Your task to perform on an android device: Add "macbook pro 15 inch" to the cart on amazon.com, then select checkout. Image 0: 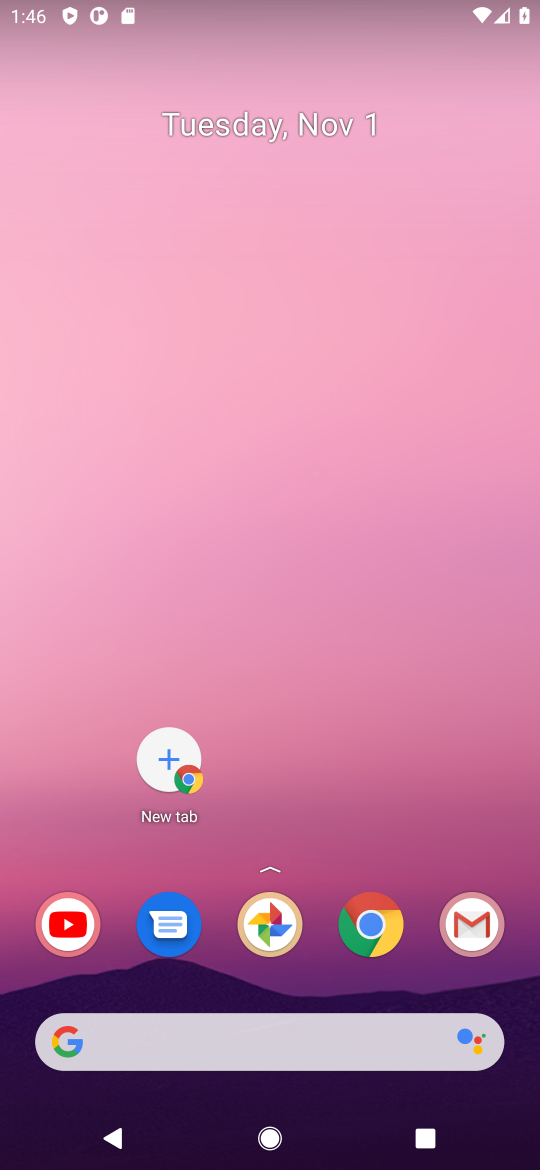
Step 0: click (358, 922)
Your task to perform on an android device: Add "macbook pro 15 inch" to the cart on amazon.com, then select checkout. Image 1: 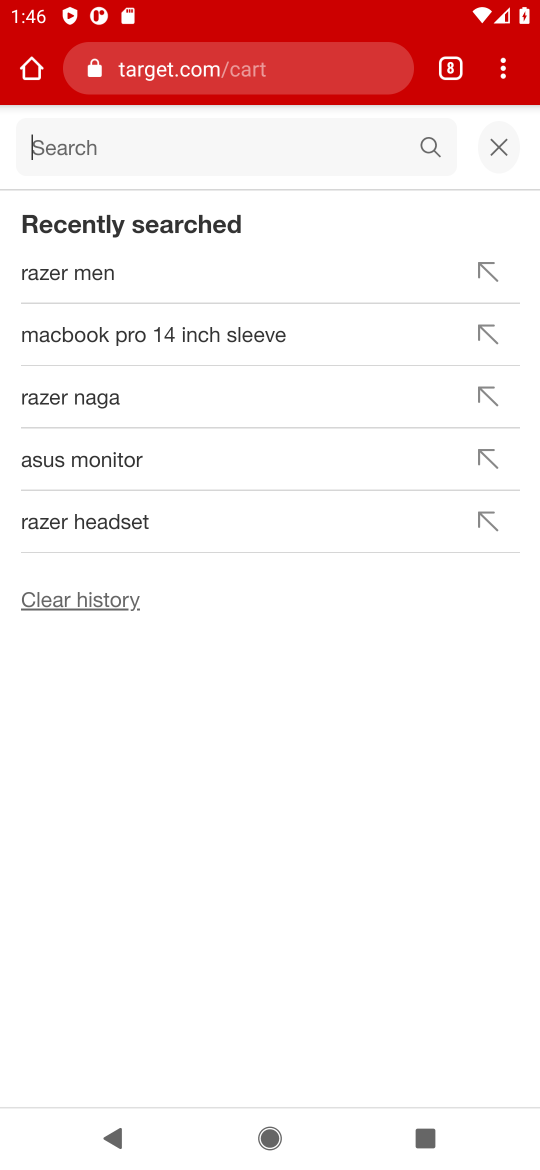
Step 1: click (190, 69)
Your task to perform on an android device: Add "macbook pro 15 inch" to the cart on amazon.com, then select checkout. Image 2: 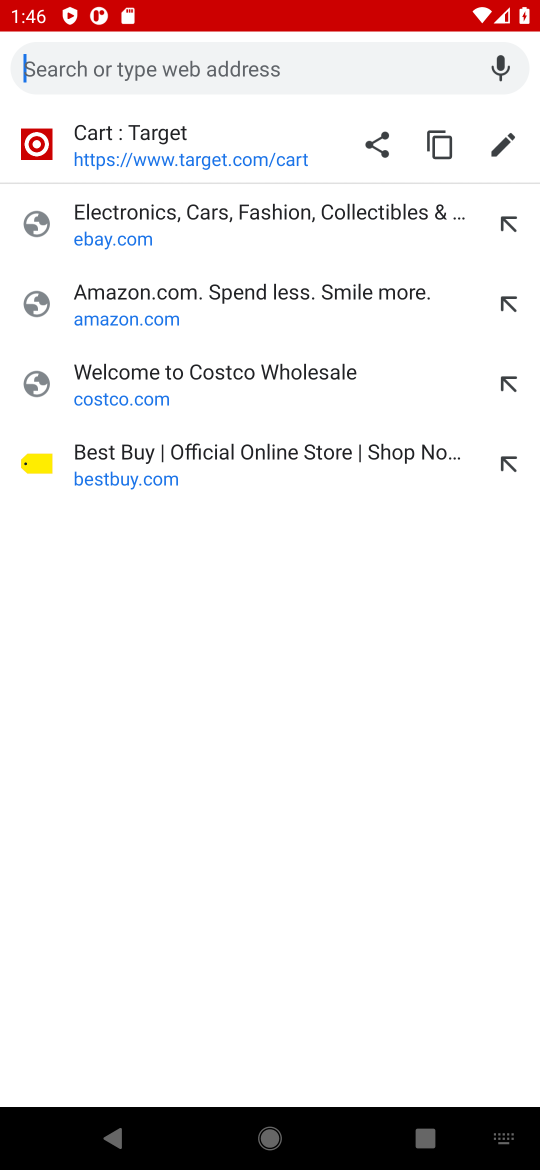
Step 2: type "amazon.com"
Your task to perform on an android device: Add "macbook pro 15 inch" to the cart on amazon.com, then select checkout. Image 3: 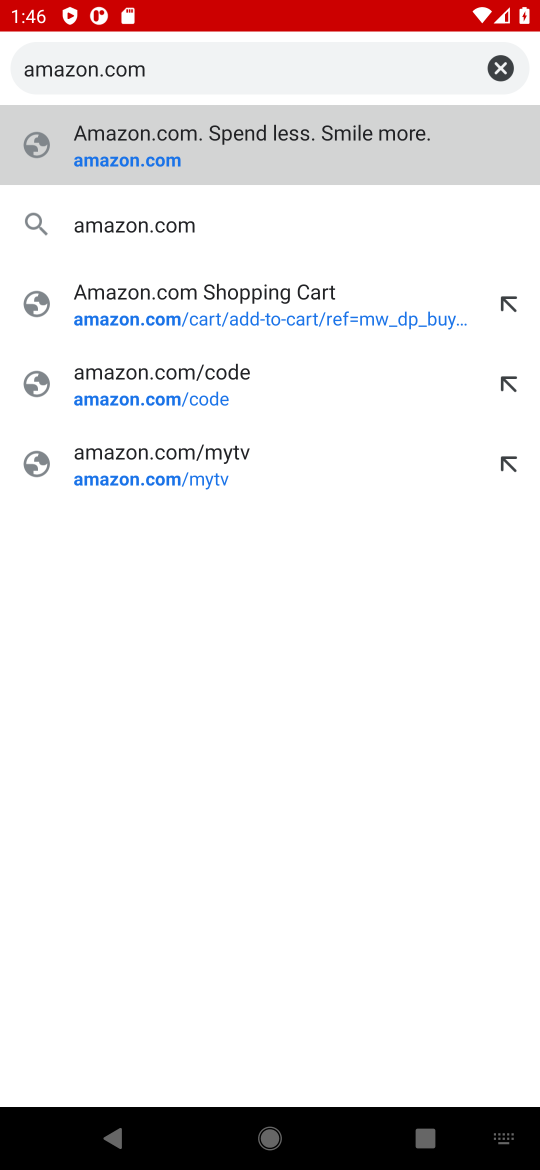
Step 3: type ""
Your task to perform on an android device: Add "macbook pro 15 inch" to the cart on amazon.com, then select checkout. Image 4: 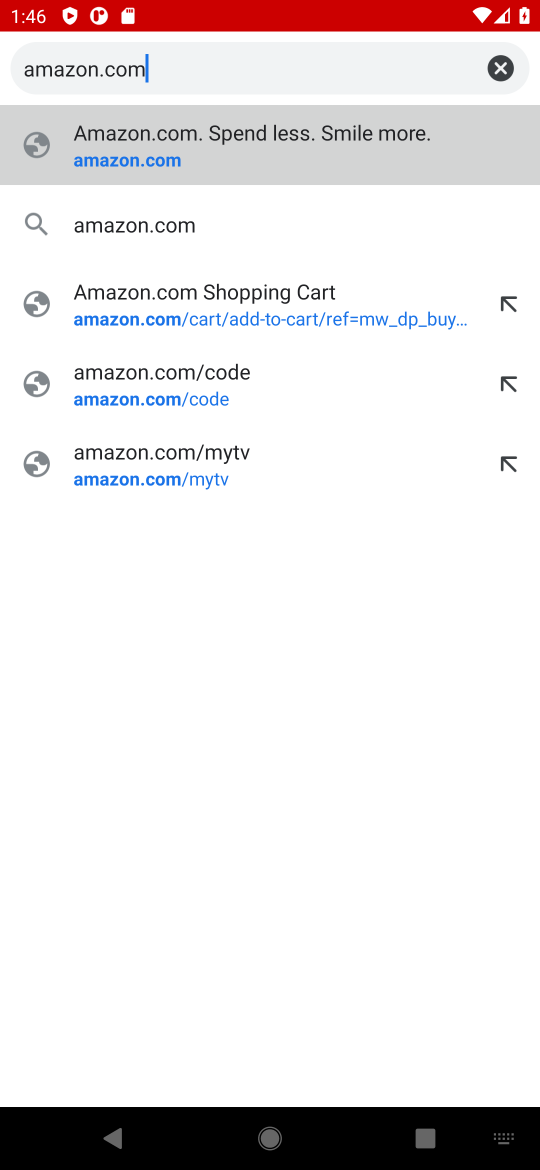
Step 4: click (173, 149)
Your task to perform on an android device: Add "macbook pro 15 inch" to the cart on amazon.com, then select checkout. Image 5: 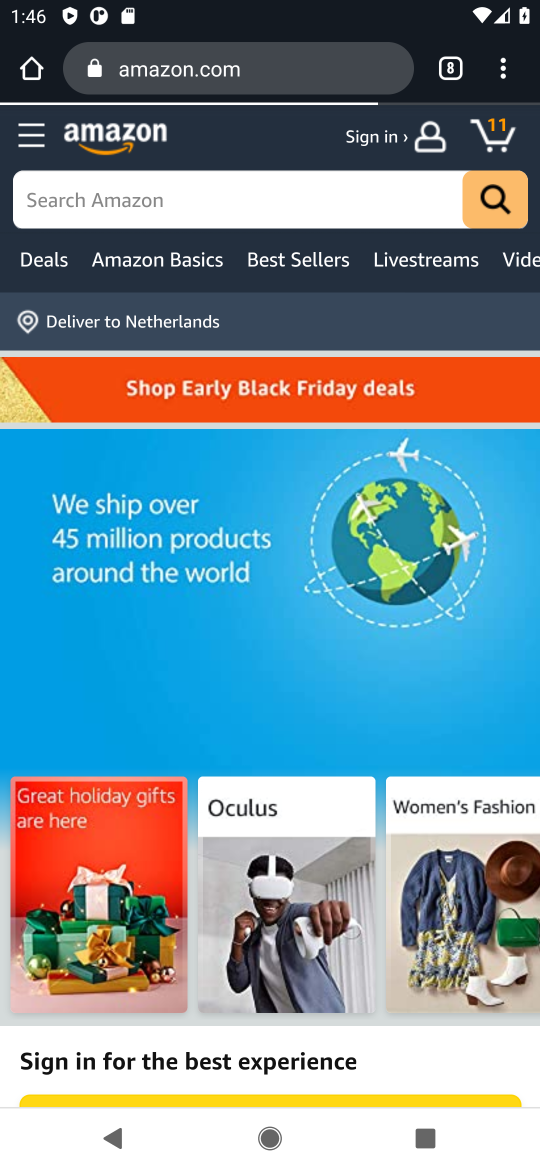
Step 5: click (148, 207)
Your task to perform on an android device: Add "macbook pro 15 inch" to the cart on amazon.com, then select checkout. Image 6: 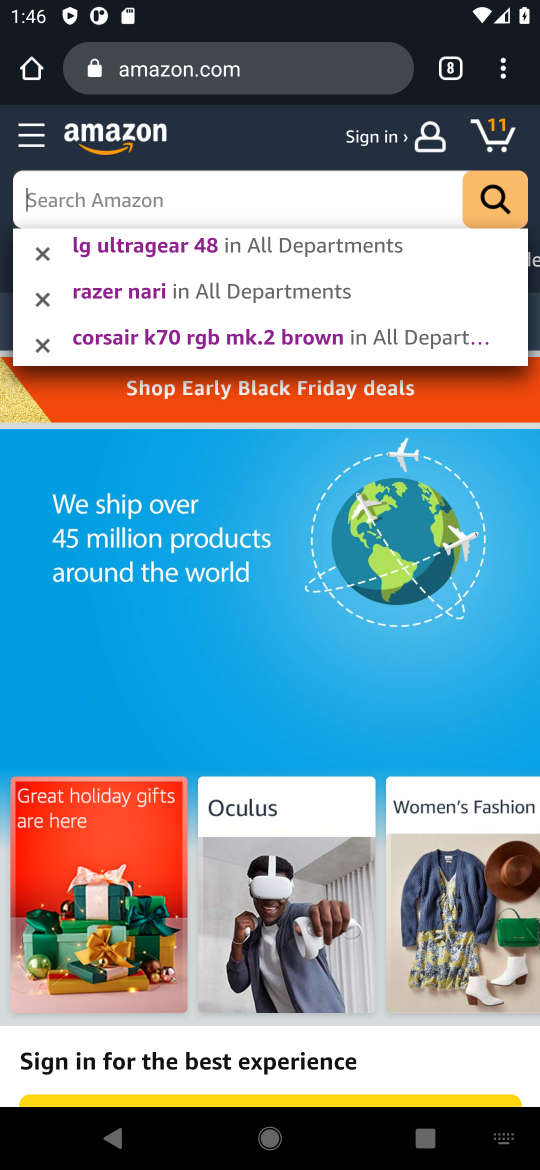
Step 6: type "macpro 15 inch"
Your task to perform on an android device: Add "macbook pro 15 inch" to the cart on amazon.com, then select checkout. Image 7: 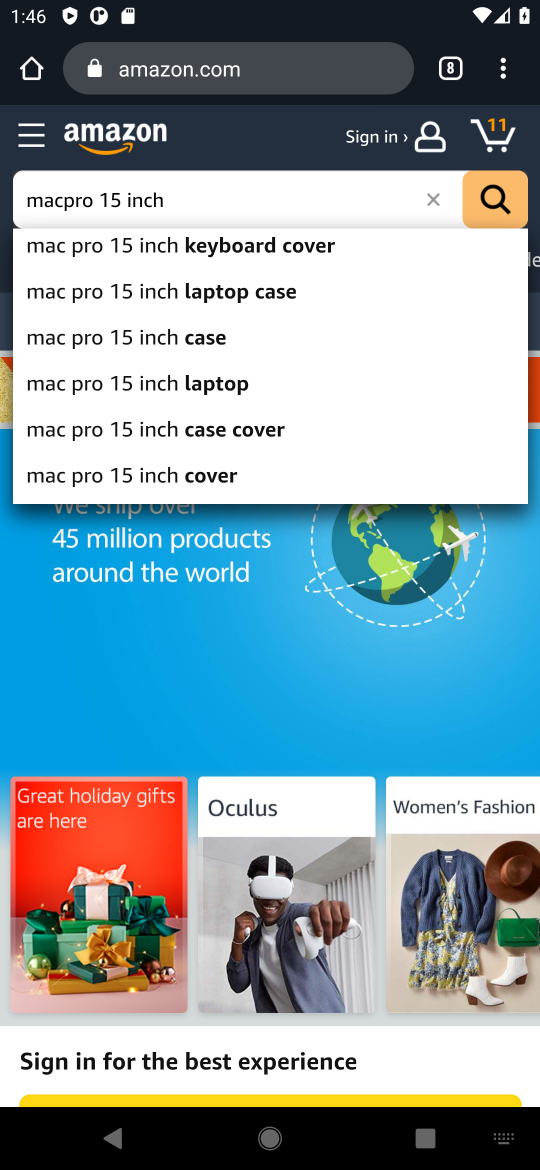
Step 7: type ""
Your task to perform on an android device: Add "macbook pro 15 inch" to the cart on amazon.com, then select checkout. Image 8: 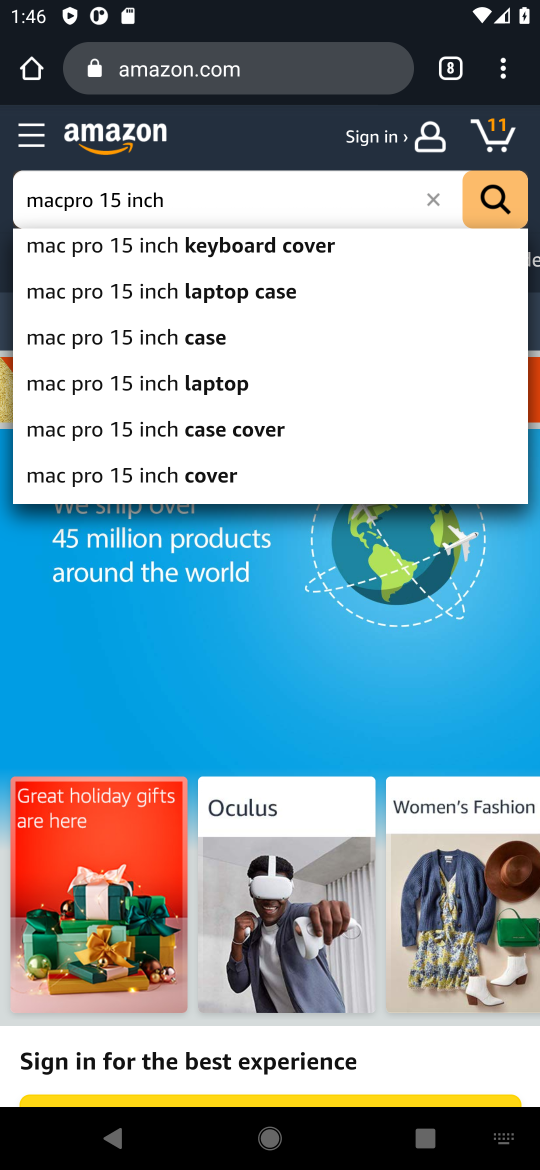
Step 8: click (174, 245)
Your task to perform on an android device: Add "macbook pro 15 inch" to the cart on amazon.com, then select checkout. Image 9: 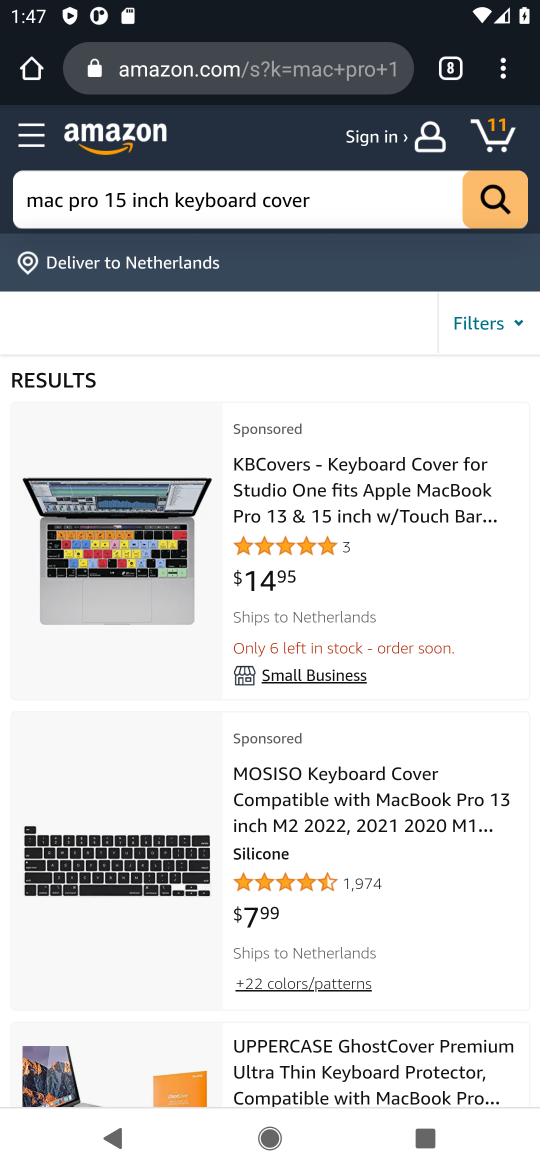
Step 9: drag from (164, 896) to (151, 815)
Your task to perform on an android device: Add "macbook pro 15 inch" to the cart on amazon.com, then select checkout. Image 10: 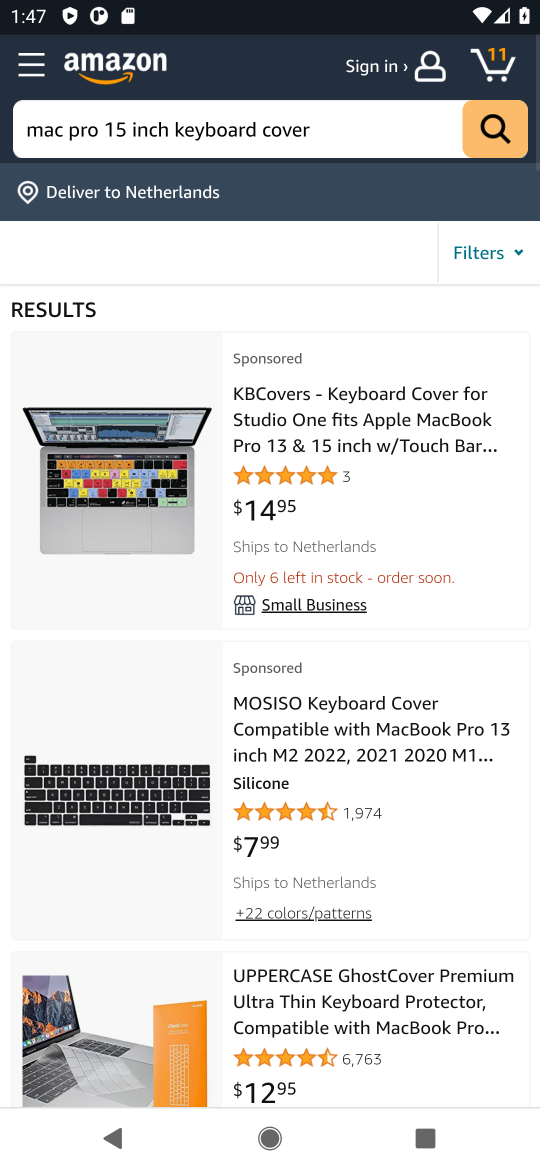
Step 10: click (145, 804)
Your task to perform on an android device: Add "macbook pro 15 inch" to the cart on amazon.com, then select checkout. Image 11: 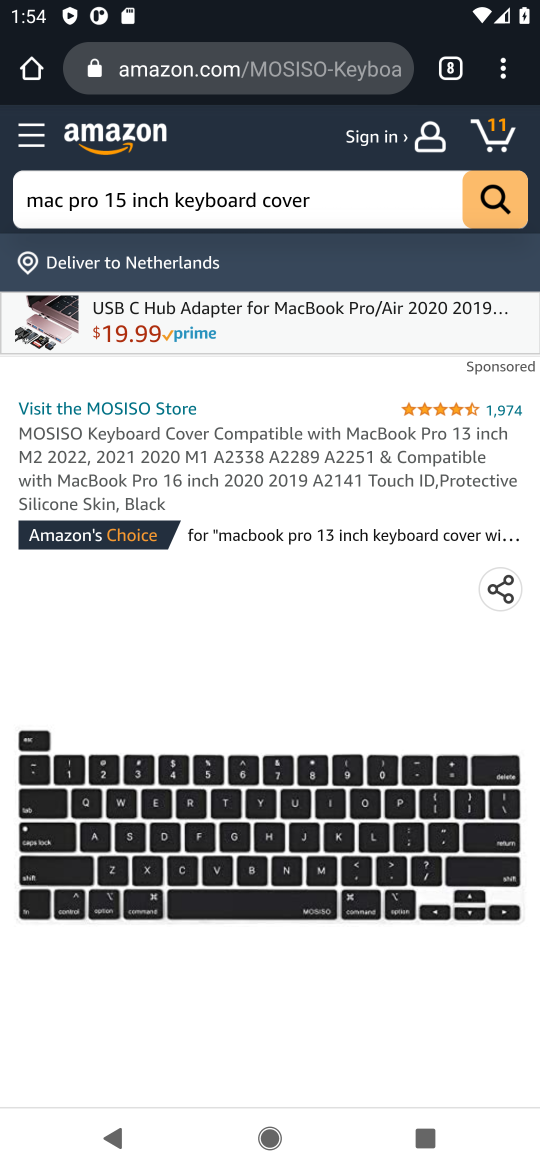
Step 11: drag from (273, 922) to (333, 491)
Your task to perform on an android device: Add "macbook pro 15 inch" to the cart on amazon.com, then select checkout. Image 12: 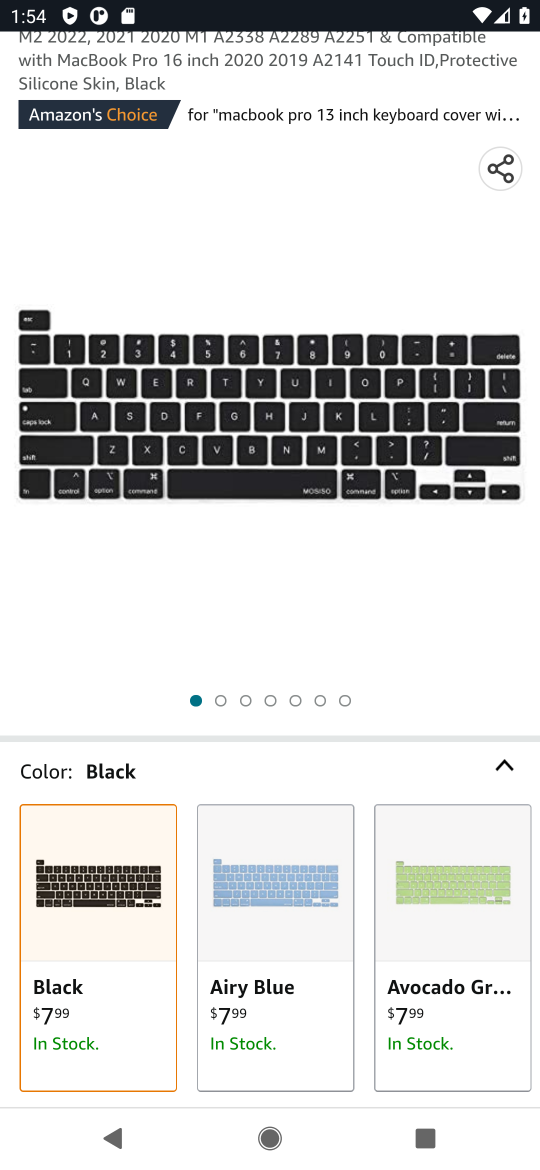
Step 12: drag from (247, 842) to (408, 442)
Your task to perform on an android device: Add "macbook pro 15 inch" to the cart on amazon.com, then select checkout. Image 13: 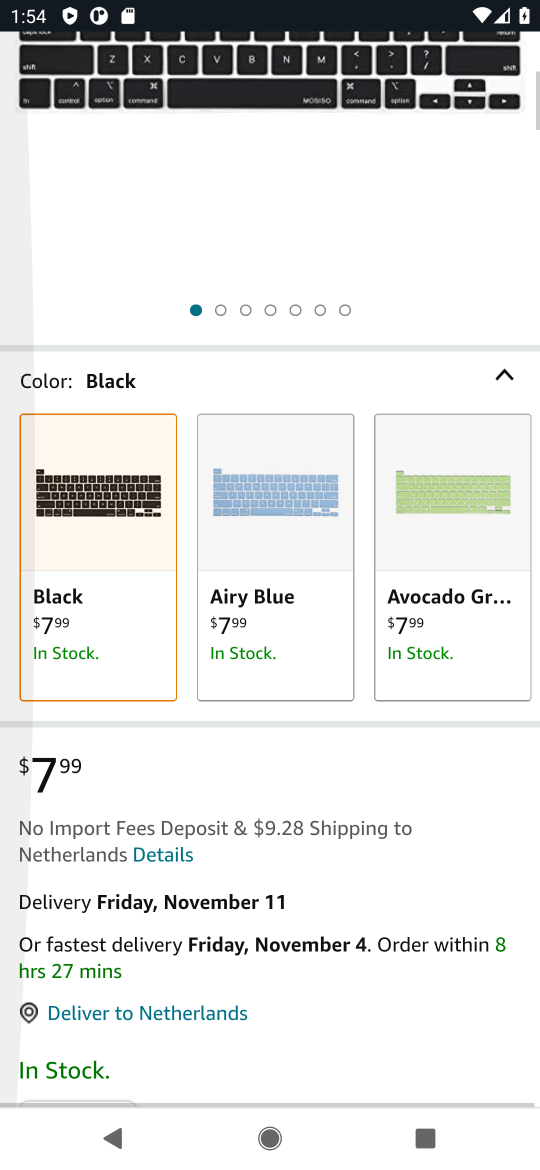
Step 13: drag from (180, 863) to (266, 427)
Your task to perform on an android device: Add "macbook pro 15 inch" to the cart on amazon.com, then select checkout. Image 14: 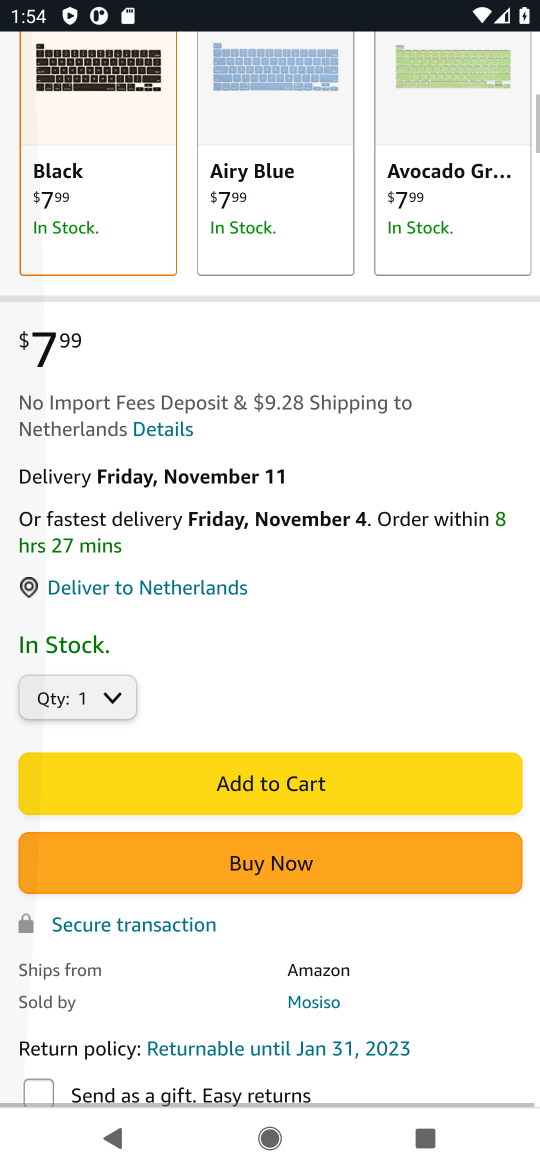
Step 14: drag from (244, 643) to (285, 399)
Your task to perform on an android device: Add "macbook pro 15 inch" to the cart on amazon.com, then select checkout. Image 15: 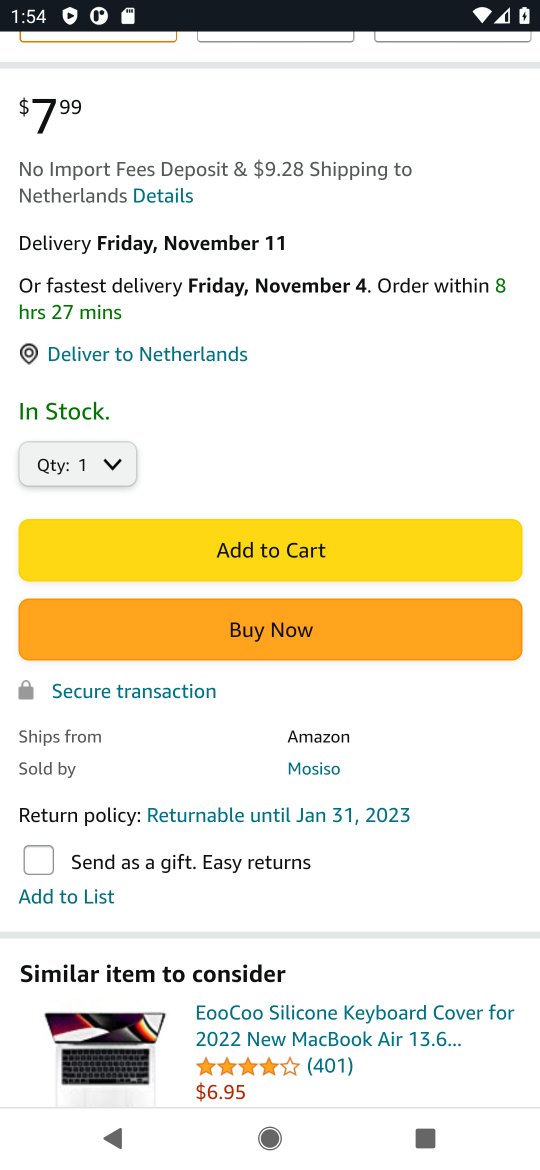
Step 15: click (270, 1051)
Your task to perform on an android device: Add "macbook pro 15 inch" to the cart on amazon.com, then select checkout. Image 16: 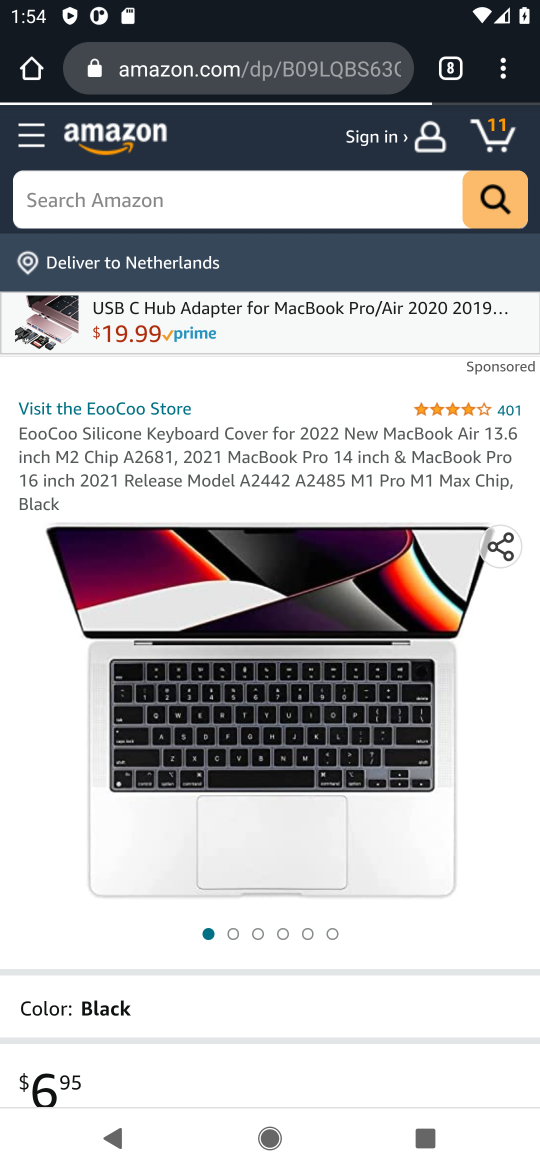
Step 16: click (503, 134)
Your task to perform on an android device: Add "macbook pro 15 inch" to the cart on amazon.com, then select checkout. Image 17: 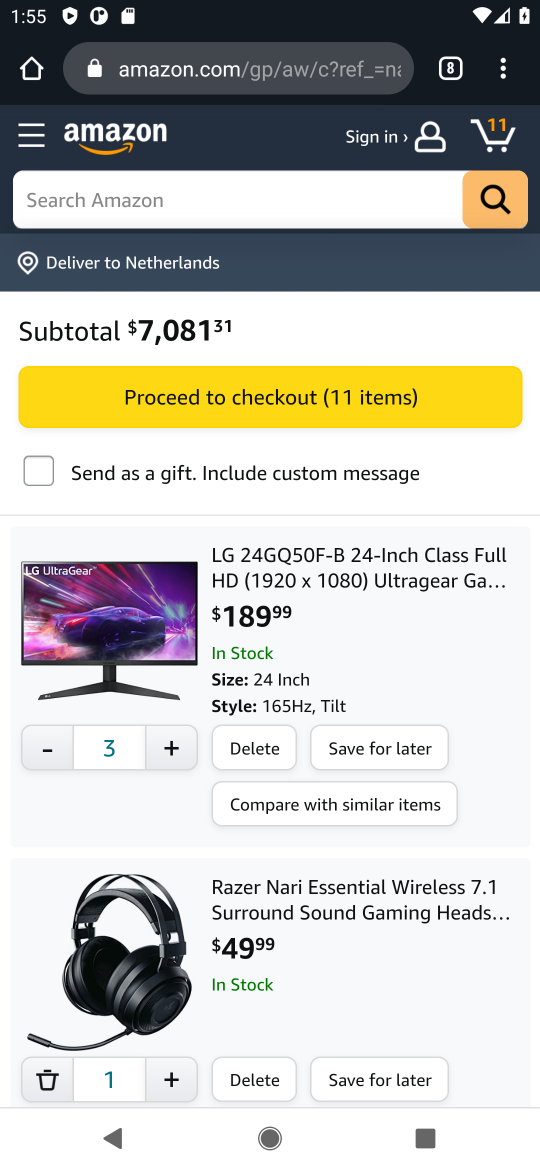
Step 17: click (236, 413)
Your task to perform on an android device: Add "macbook pro 15 inch" to the cart on amazon.com, then select checkout. Image 18: 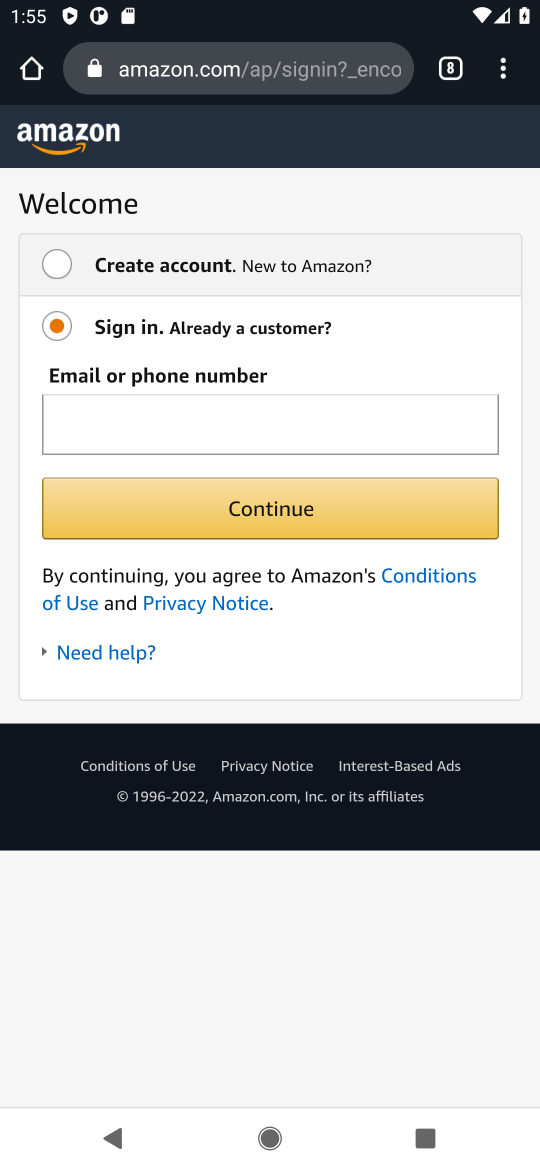
Step 18: task complete